Your task to perform on an android device: Open Google Chrome Image 0: 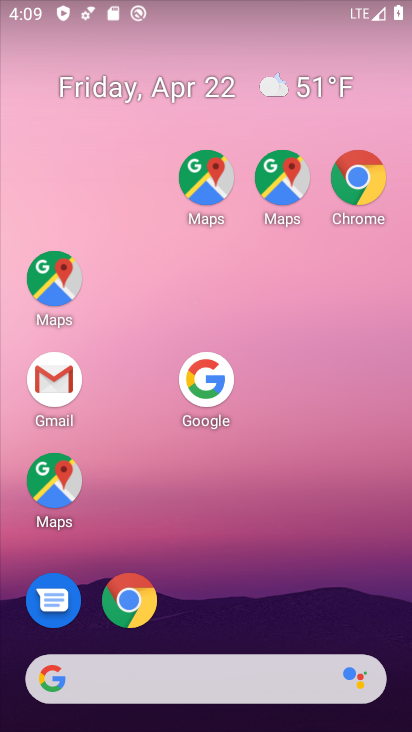
Step 0: click (122, 71)
Your task to perform on an android device: Open Google Chrome Image 1: 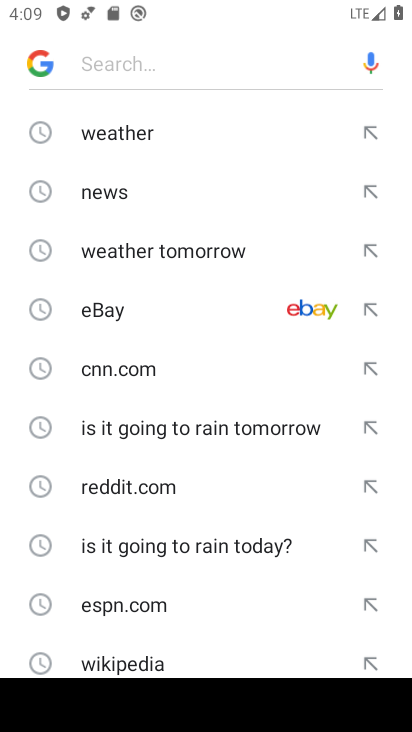
Step 1: press home button
Your task to perform on an android device: Open Google Chrome Image 2: 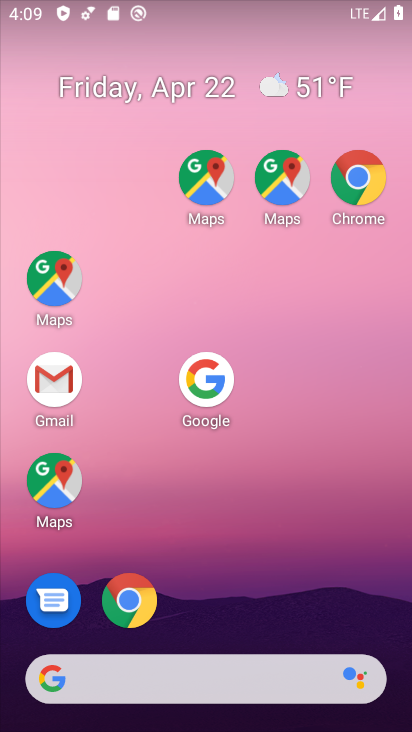
Step 2: drag from (279, 709) to (91, 227)
Your task to perform on an android device: Open Google Chrome Image 3: 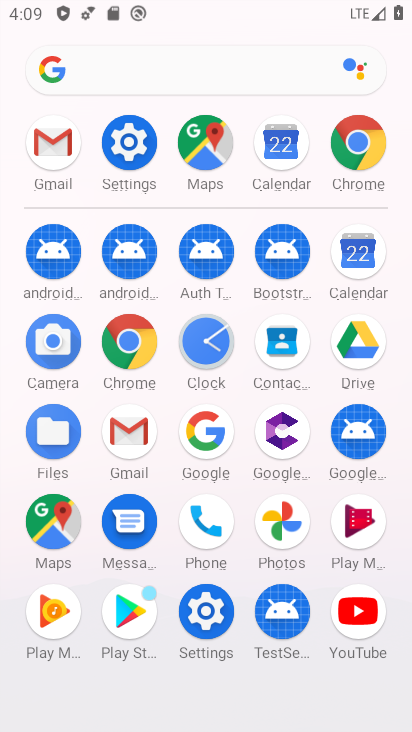
Step 3: click (343, 149)
Your task to perform on an android device: Open Google Chrome Image 4: 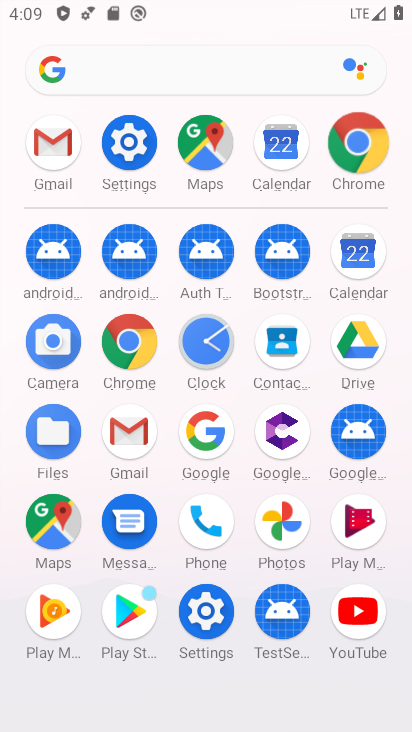
Step 4: click (356, 140)
Your task to perform on an android device: Open Google Chrome Image 5: 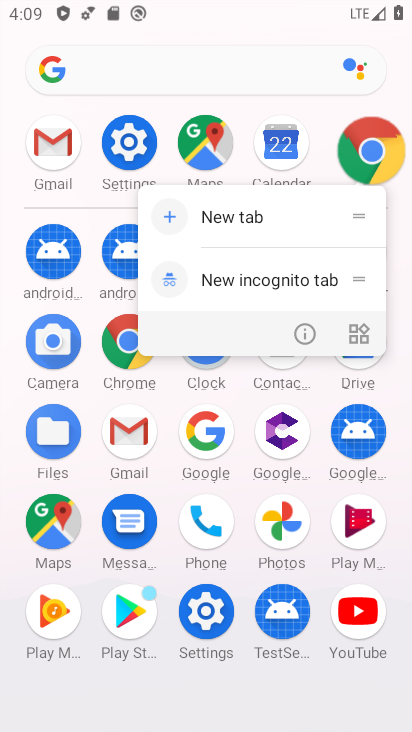
Step 5: click (395, 150)
Your task to perform on an android device: Open Google Chrome Image 6: 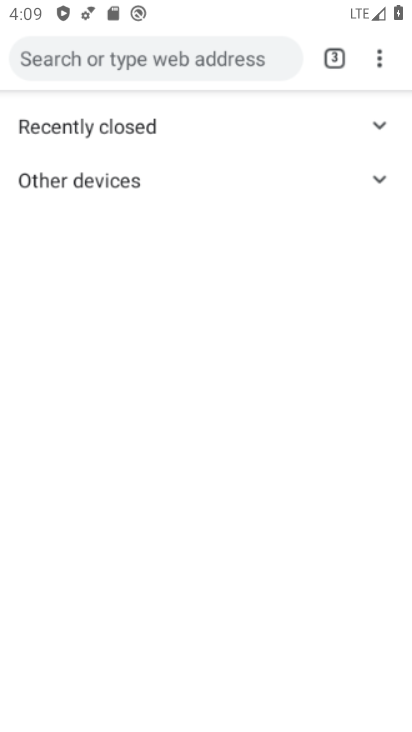
Step 6: click (366, 143)
Your task to perform on an android device: Open Google Chrome Image 7: 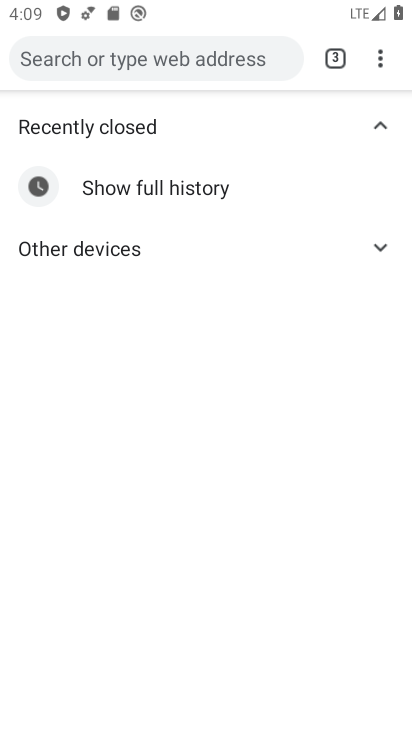
Step 7: click (173, 59)
Your task to perform on an android device: Open Google Chrome Image 8: 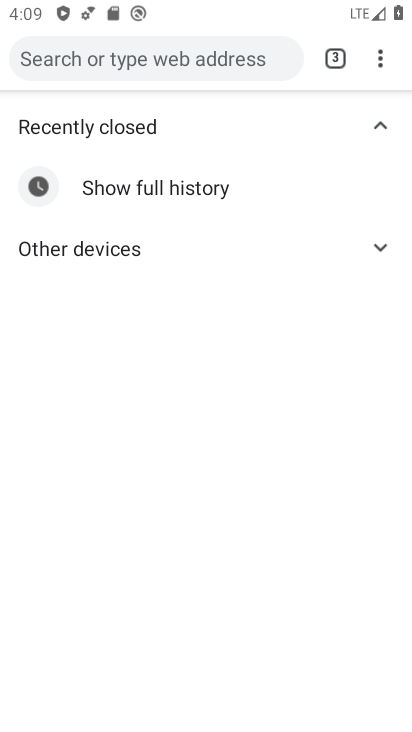
Step 8: click (169, 59)
Your task to perform on an android device: Open Google Chrome Image 9: 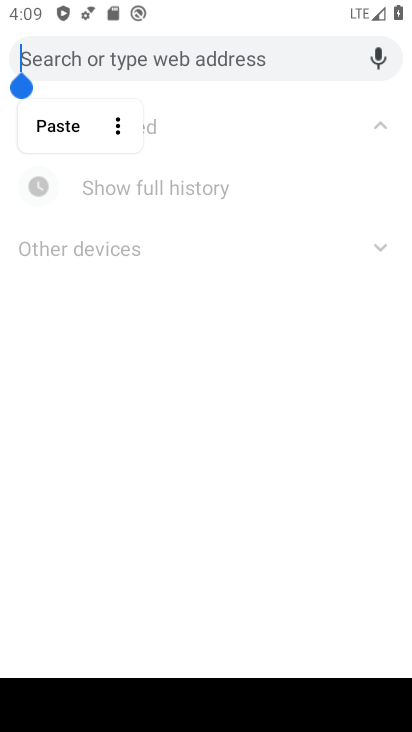
Step 9: click (130, 64)
Your task to perform on an android device: Open Google Chrome Image 10: 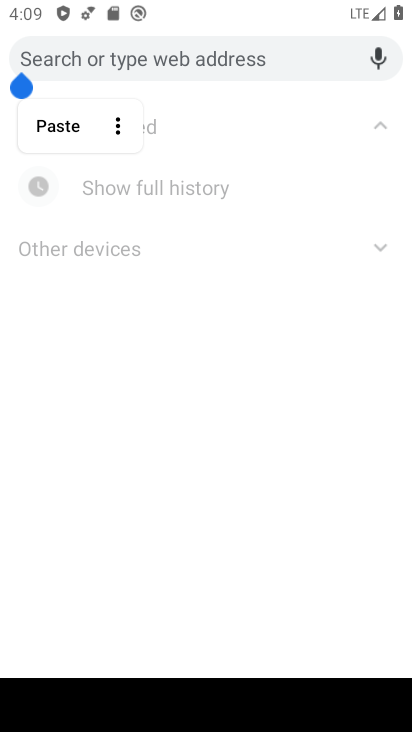
Step 10: click (144, 91)
Your task to perform on an android device: Open Google Chrome Image 11: 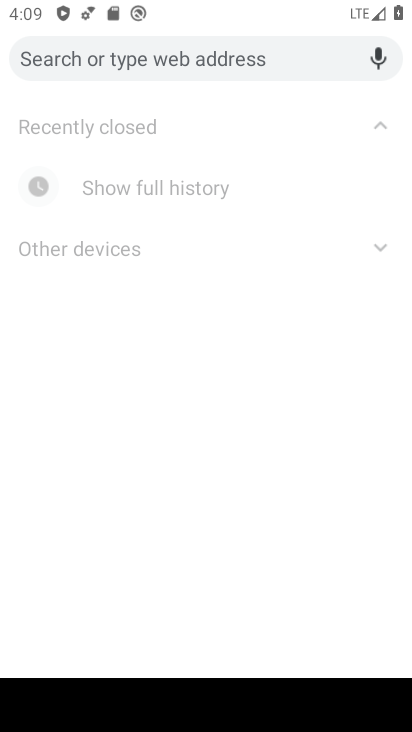
Step 11: click (101, 37)
Your task to perform on an android device: Open Google Chrome Image 12: 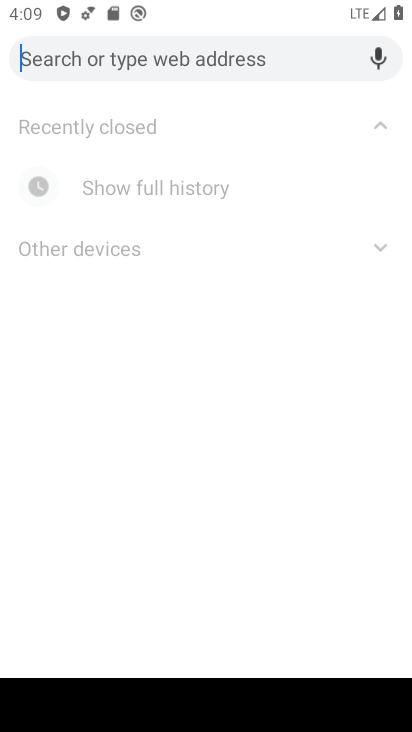
Step 12: click (107, 40)
Your task to perform on an android device: Open Google Chrome Image 13: 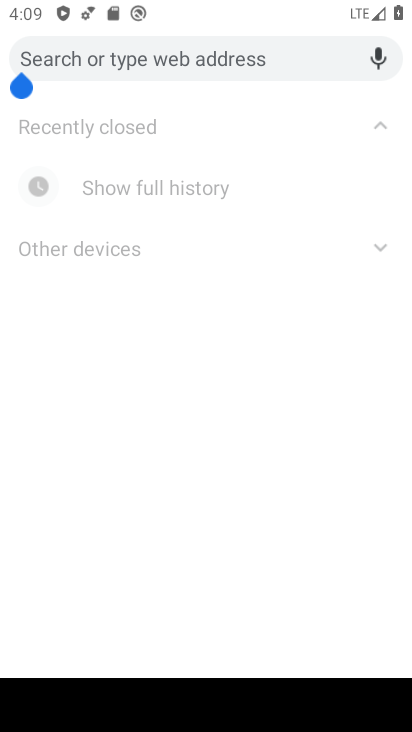
Step 13: click (136, 40)
Your task to perform on an android device: Open Google Chrome Image 14: 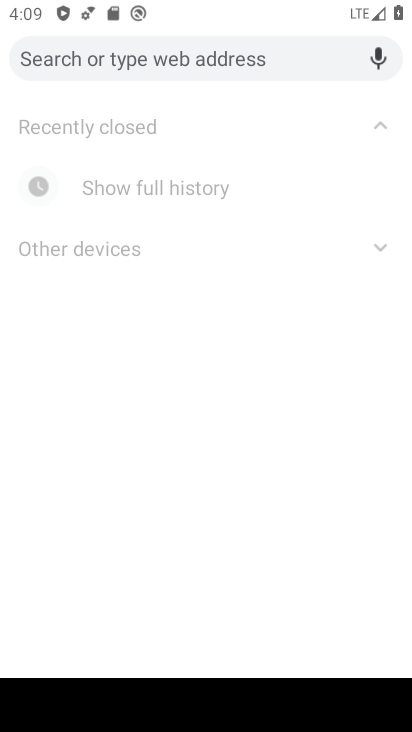
Step 14: click (110, 63)
Your task to perform on an android device: Open Google Chrome Image 15: 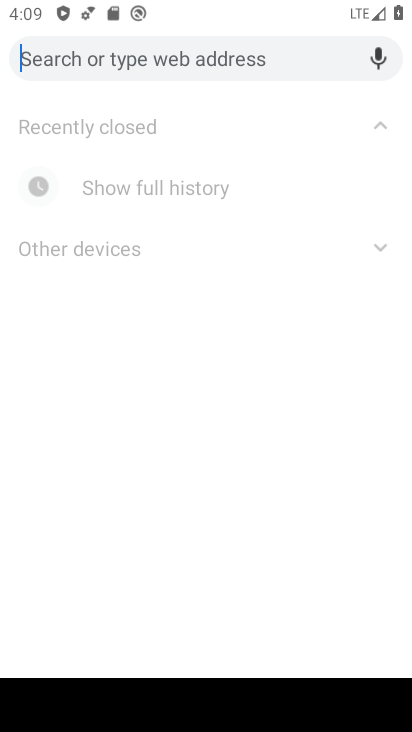
Step 15: click (110, 63)
Your task to perform on an android device: Open Google Chrome Image 16: 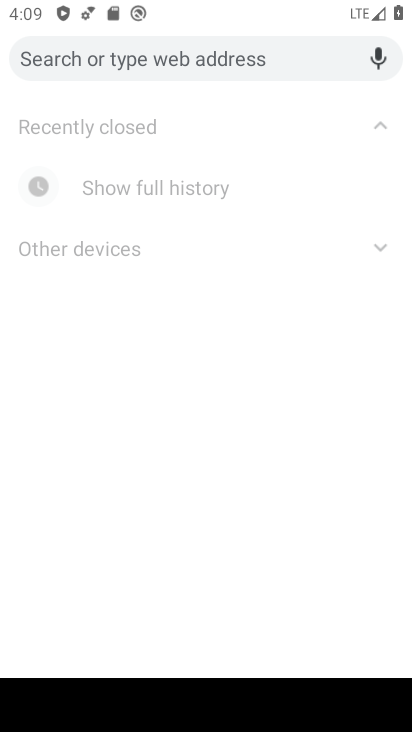
Step 16: click (110, 63)
Your task to perform on an android device: Open Google Chrome Image 17: 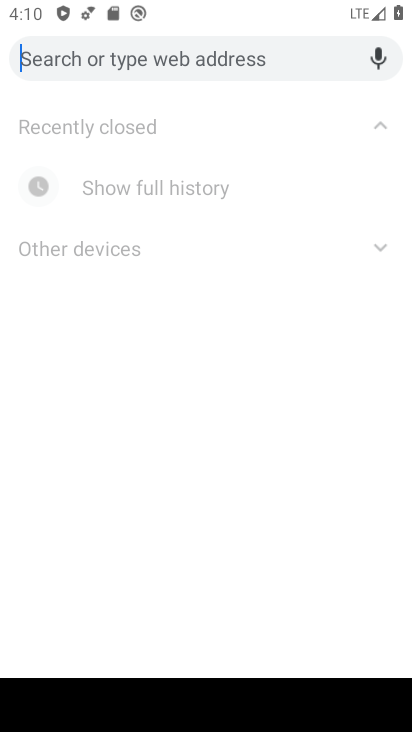
Step 17: click (59, 61)
Your task to perform on an android device: Open Google Chrome Image 18: 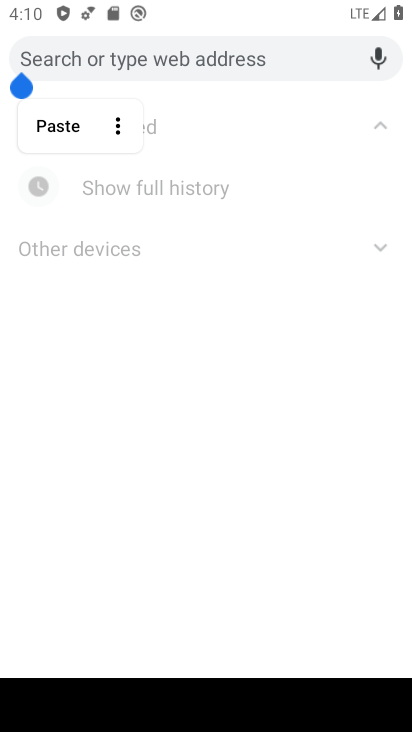
Step 18: click (62, 58)
Your task to perform on an android device: Open Google Chrome Image 19: 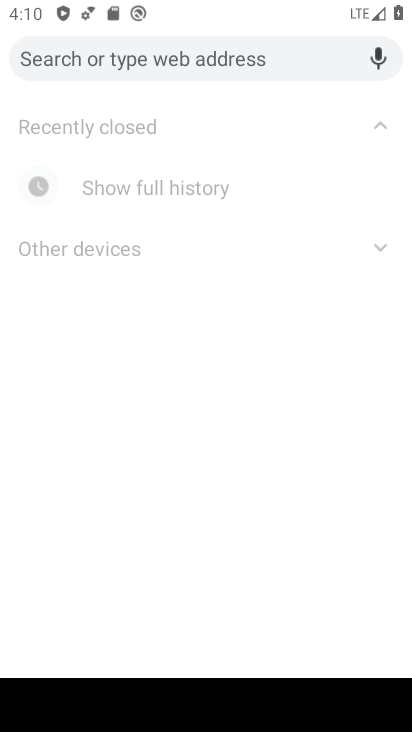
Step 19: click (66, 58)
Your task to perform on an android device: Open Google Chrome Image 20: 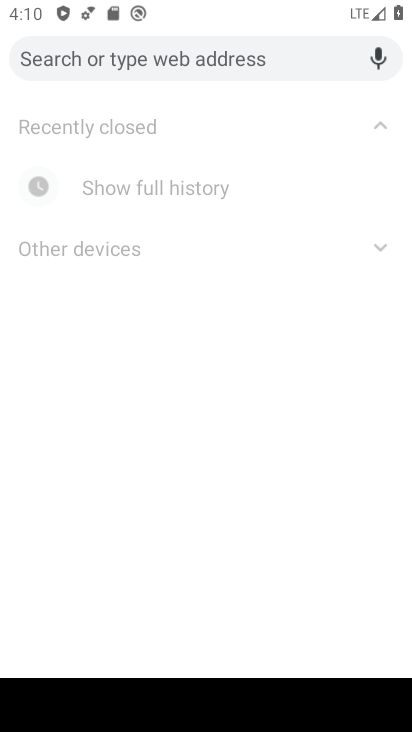
Step 20: click (68, 58)
Your task to perform on an android device: Open Google Chrome Image 21: 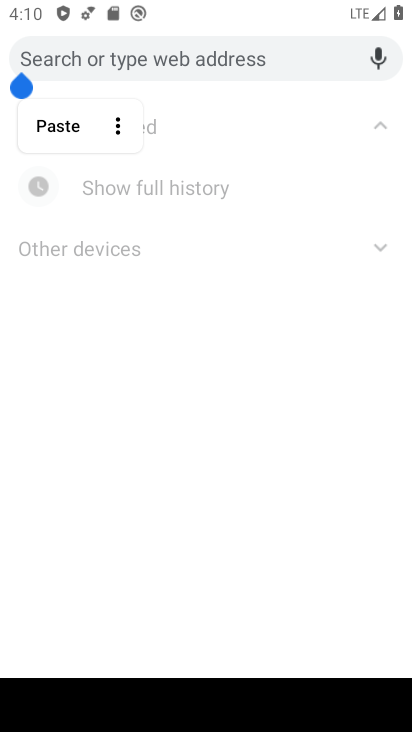
Step 21: click (34, 60)
Your task to perform on an android device: Open Google Chrome Image 22: 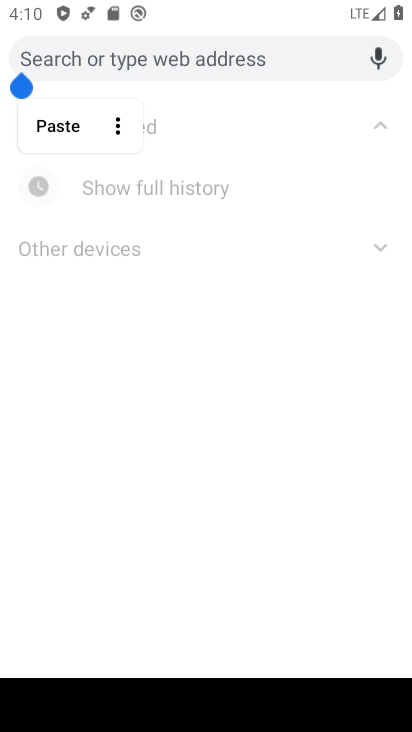
Step 22: click (33, 55)
Your task to perform on an android device: Open Google Chrome Image 23: 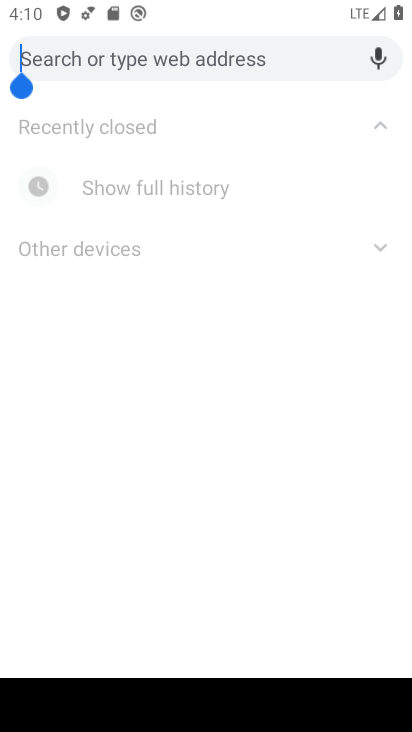
Step 23: task complete